Your task to perform on an android device: turn off airplane mode Image 0: 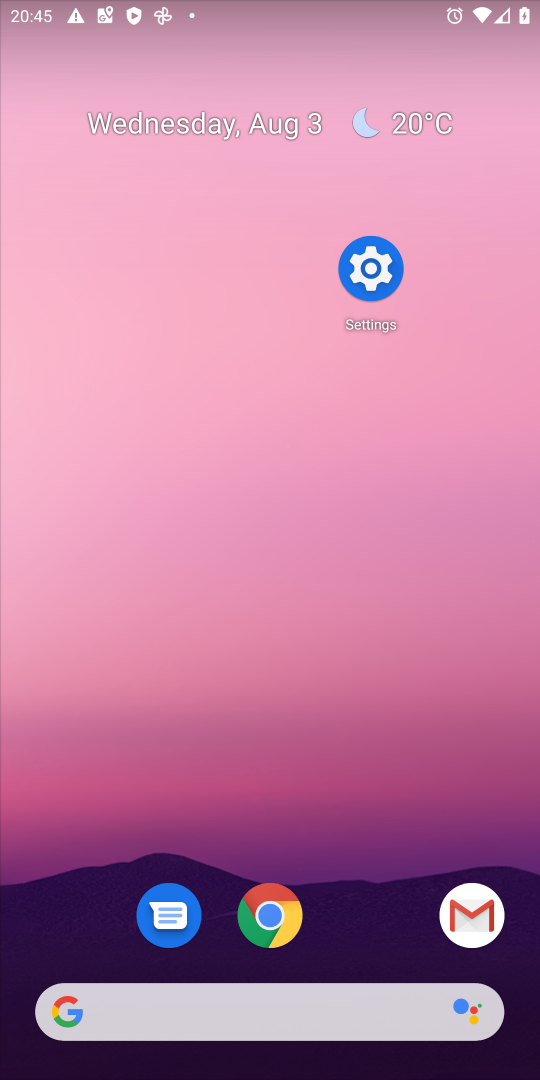
Step 0: drag from (375, 1027) to (323, 229)
Your task to perform on an android device: turn off airplane mode Image 1: 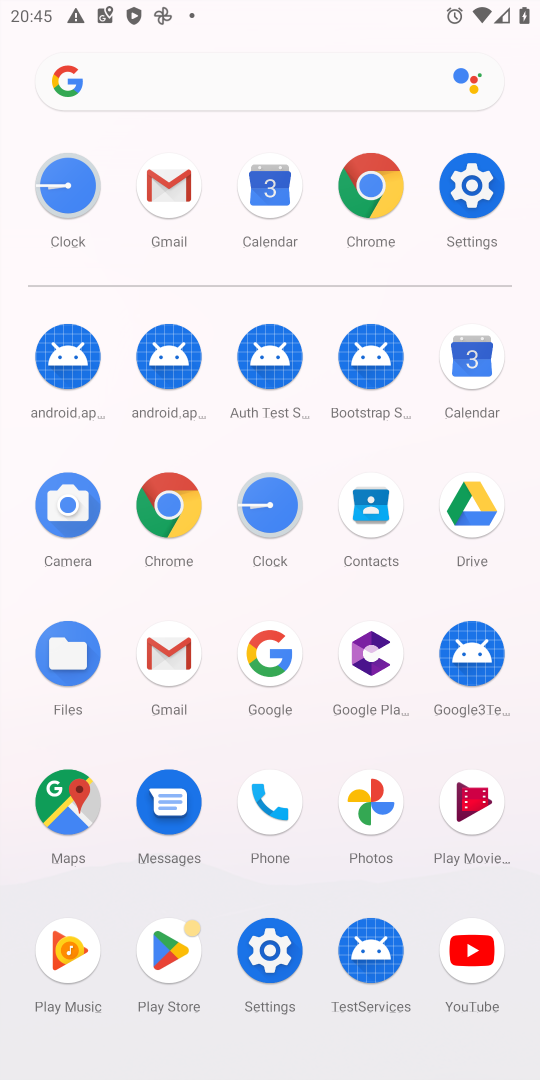
Step 1: click (462, 194)
Your task to perform on an android device: turn off airplane mode Image 2: 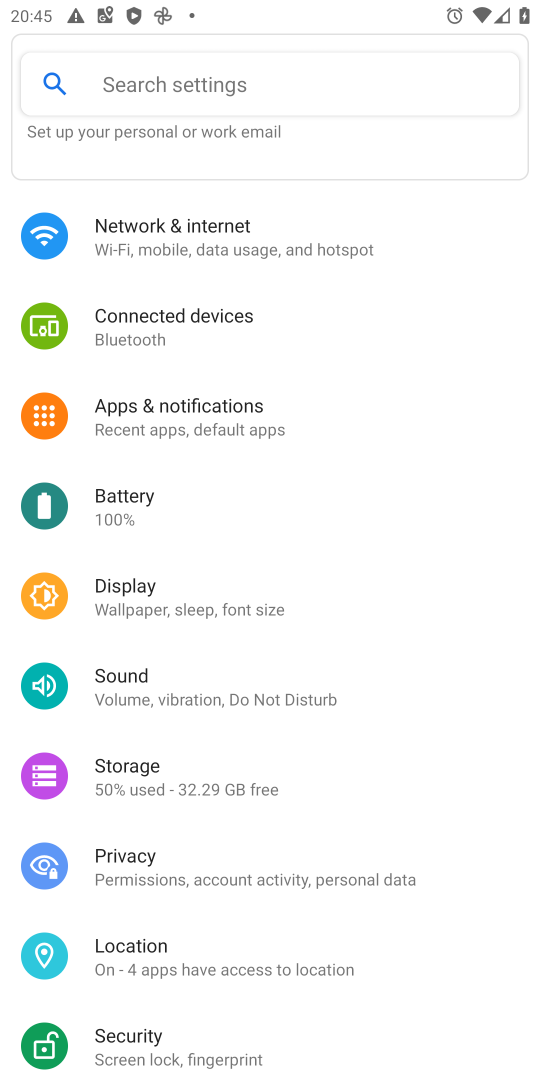
Step 2: click (203, 231)
Your task to perform on an android device: turn off airplane mode Image 3: 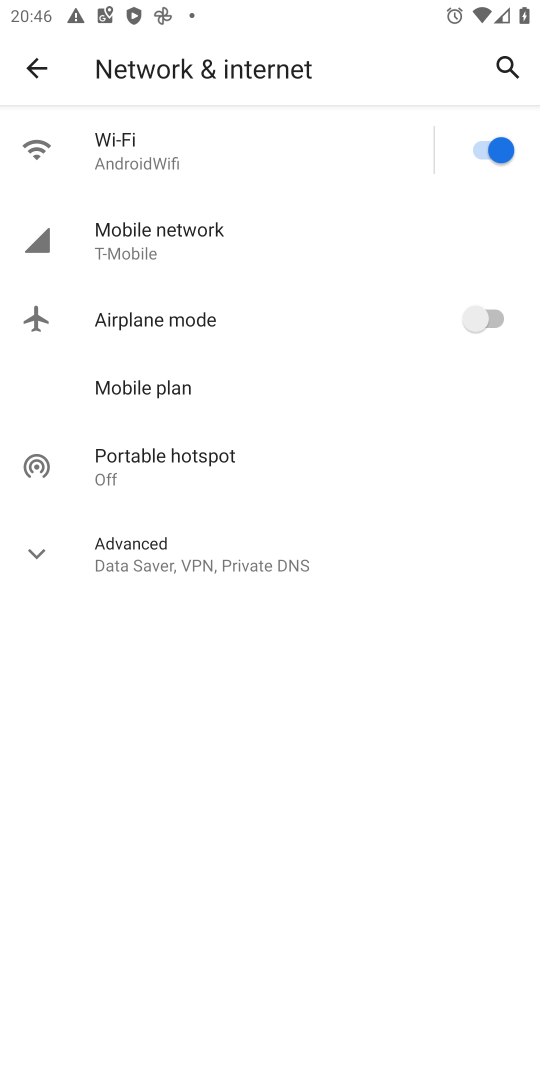
Step 3: click (165, 324)
Your task to perform on an android device: turn off airplane mode Image 4: 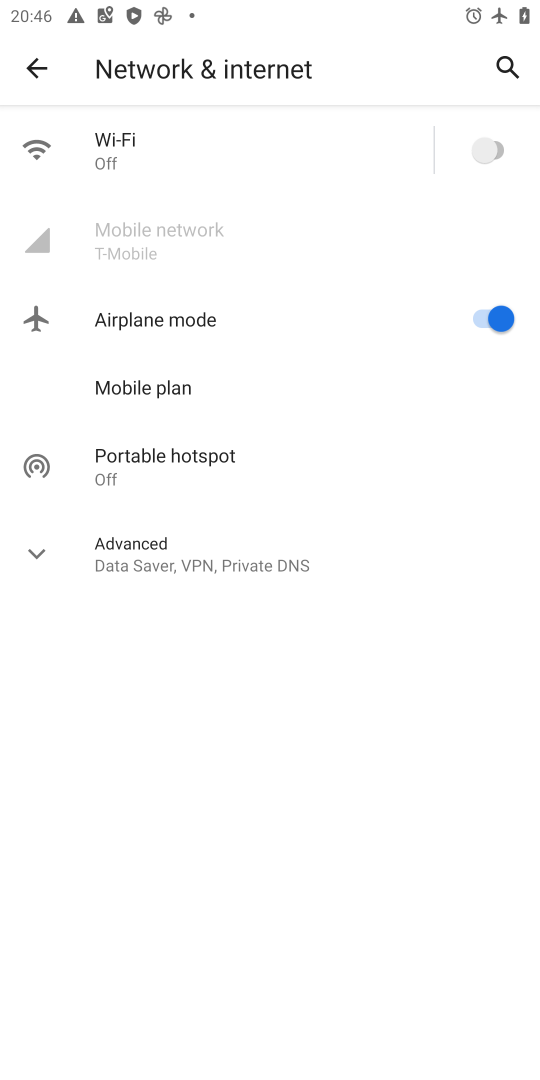
Step 4: click (165, 324)
Your task to perform on an android device: turn off airplane mode Image 5: 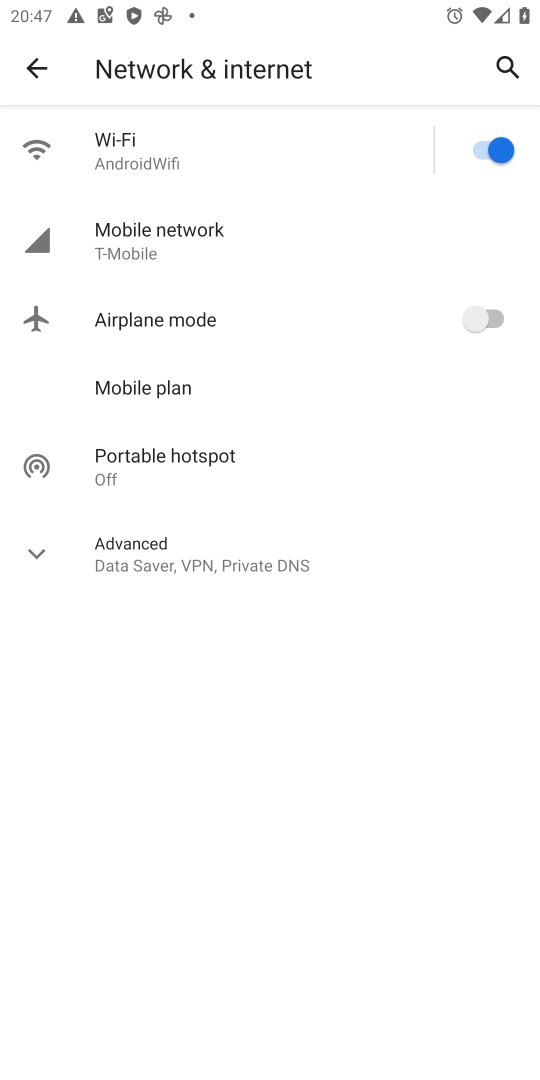
Step 5: task complete